Your task to perform on an android device: Show me recent news Image 0: 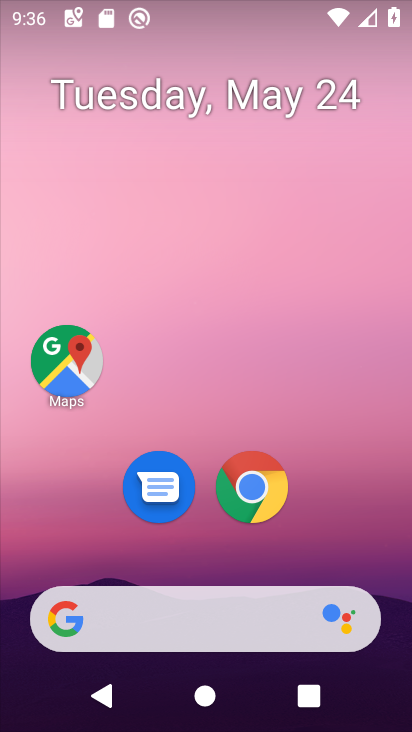
Step 0: press home button
Your task to perform on an android device: Show me recent news Image 1: 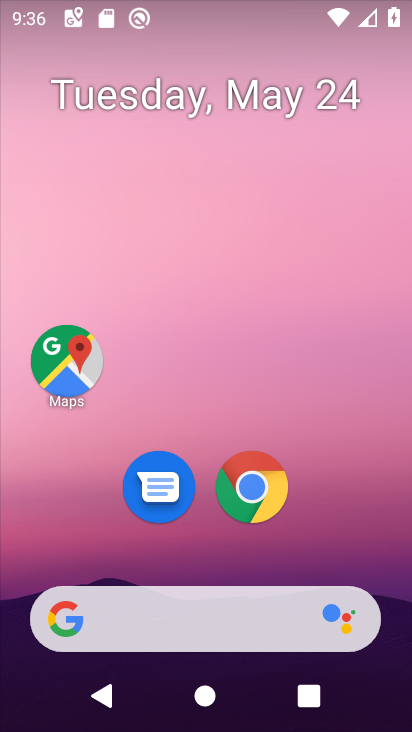
Step 1: click (71, 623)
Your task to perform on an android device: Show me recent news Image 2: 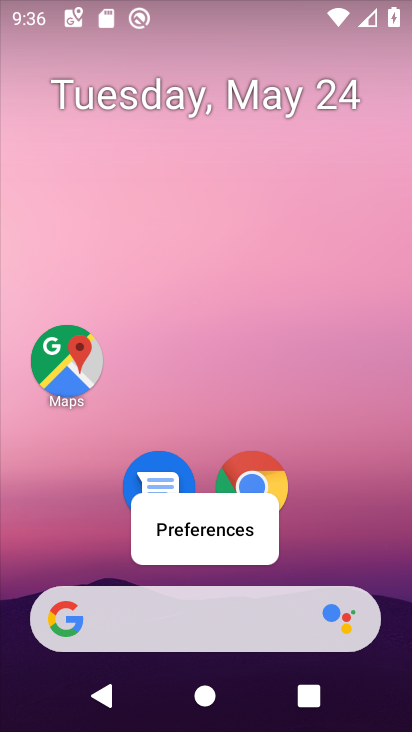
Step 2: click (80, 621)
Your task to perform on an android device: Show me recent news Image 3: 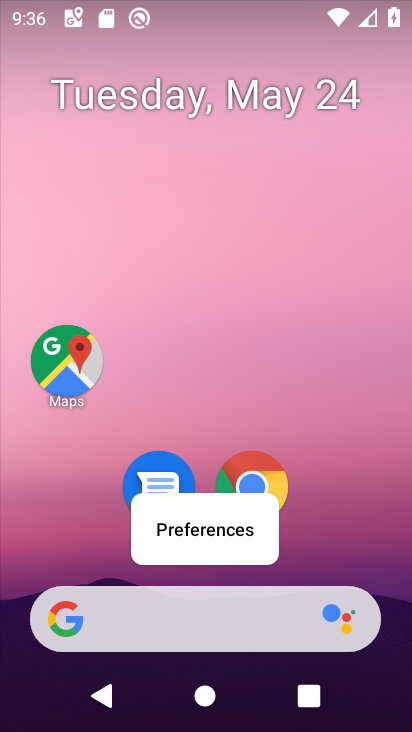
Step 3: click (74, 616)
Your task to perform on an android device: Show me recent news Image 4: 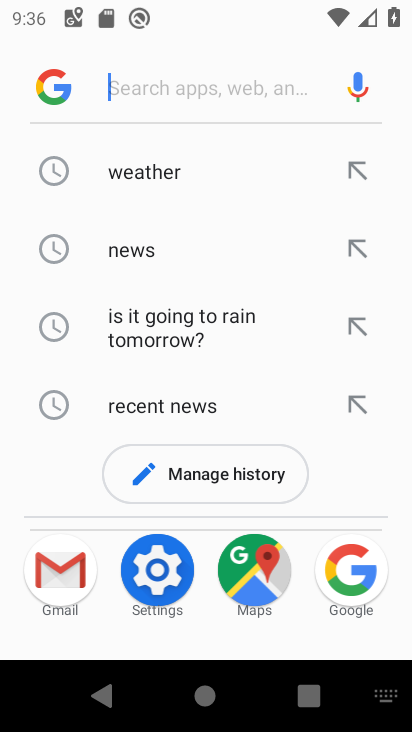
Step 4: click (143, 255)
Your task to perform on an android device: Show me recent news Image 5: 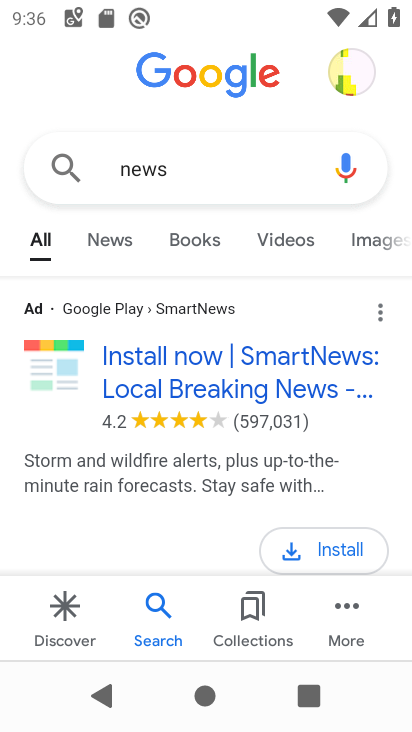
Step 5: click (120, 237)
Your task to perform on an android device: Show me recent news Image 6: 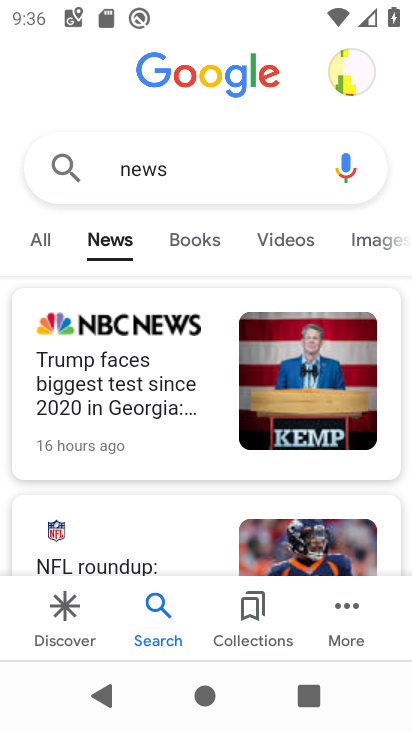
Step 6: task complete